Your task to perform on an android device: allow cookies in the chrome app Image 0: 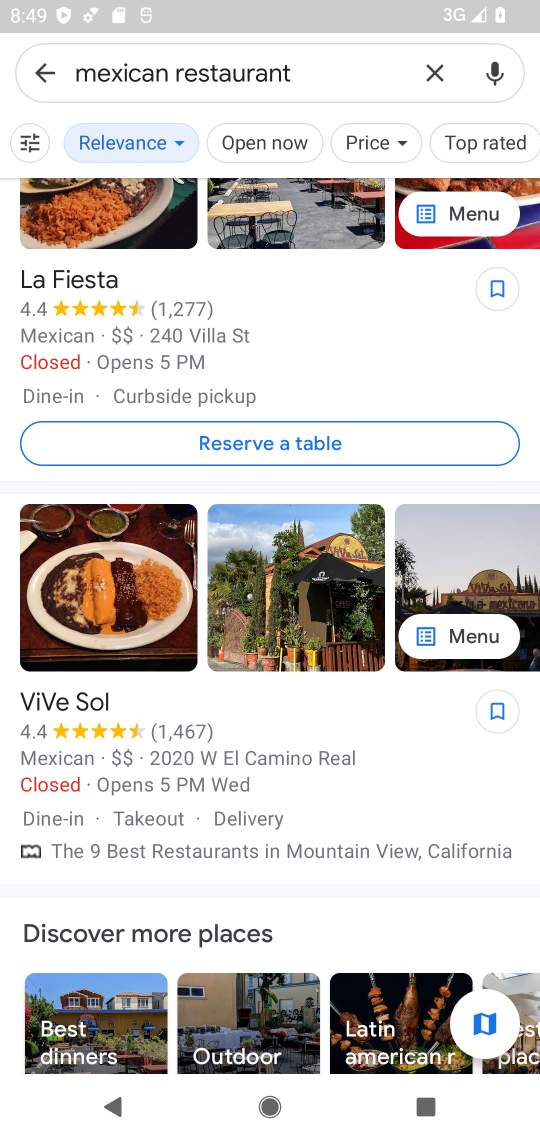
Step 0: press home button
Your task to perform on an android device: allow cookies in the chrome app Image 1: 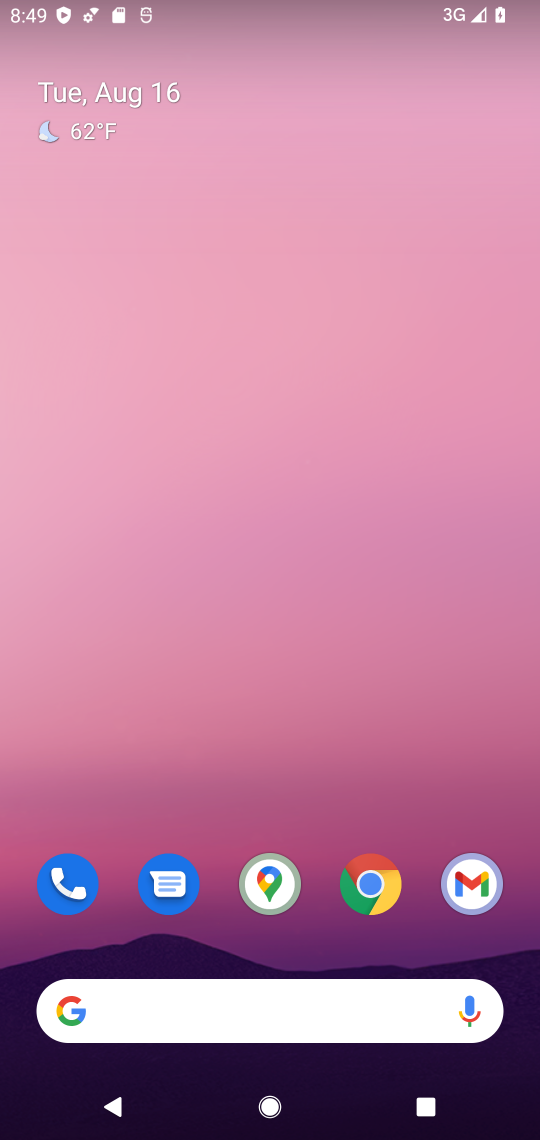
Step 1: click (372, 887)
Your task to perform on an android device: allow cookies in the chrome app Image 2: 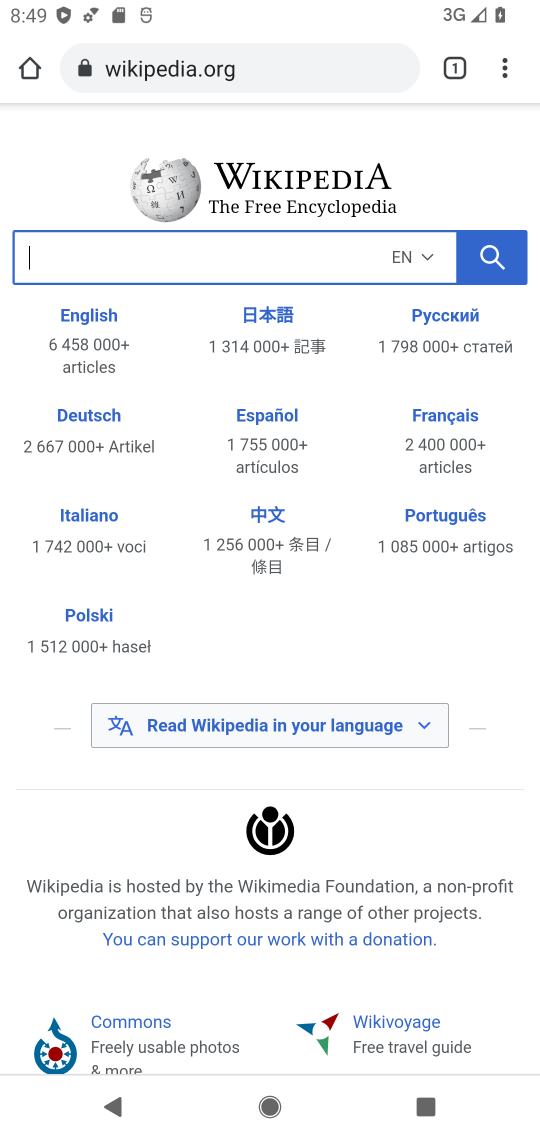
Step 2: click (496, 75)
Your task to perform on an android device: allow cookies in the chrome app Image 3: 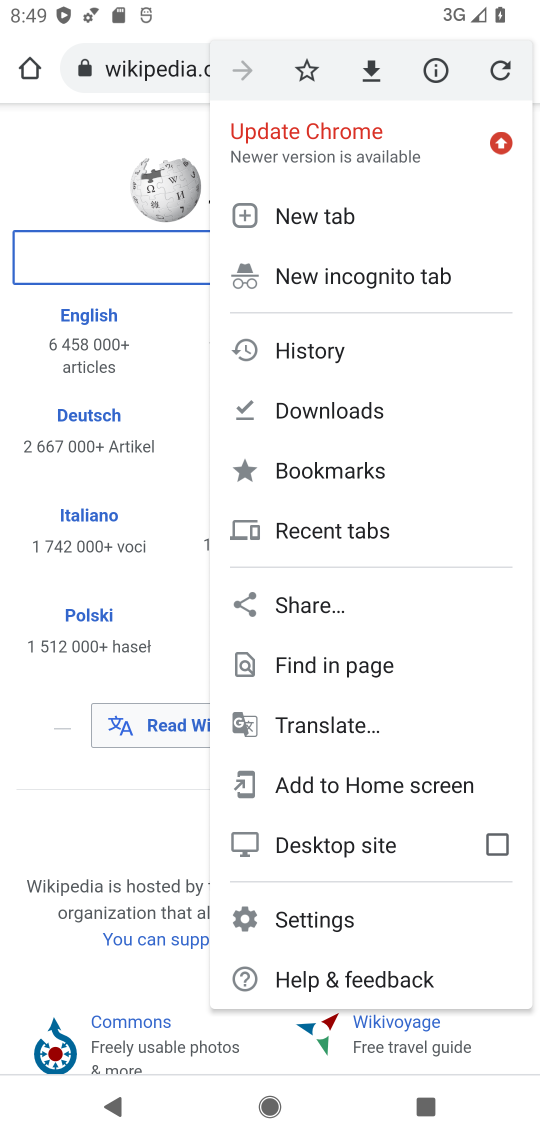
Step 3: click (320, 916)
Your task to perform on an android device: allow cookies in the chrome app Image 4: 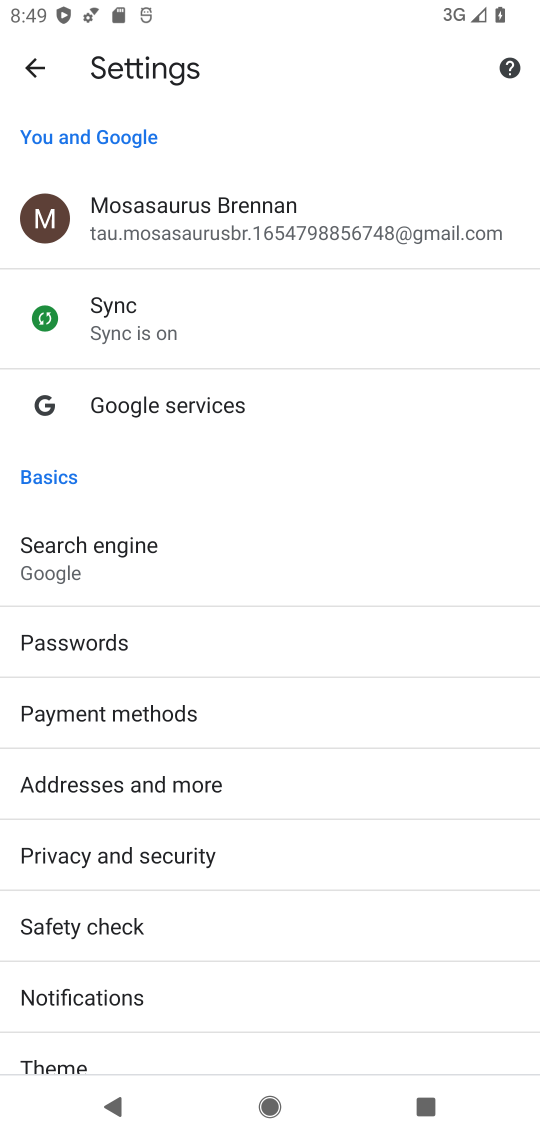
Step 4: drag from (343, 964) to (310, 408)
Your task to perform on an android device: allow cookies in the chrome app Image 5: 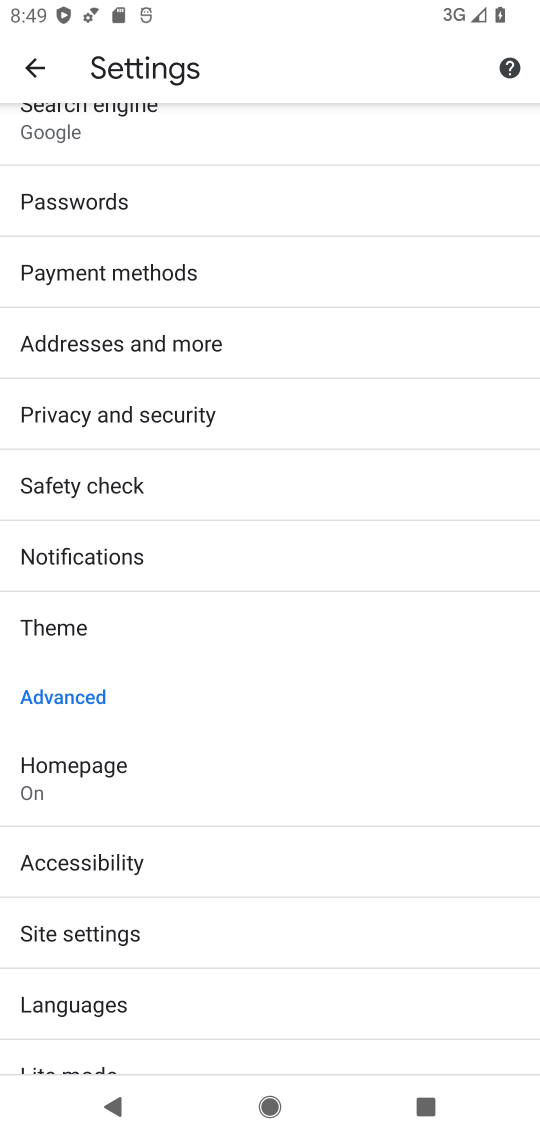
Step 5: drag from (314, 918) to (293, 368)
Your task to perform on an android device: allow cookies in the chrome app Image 6: 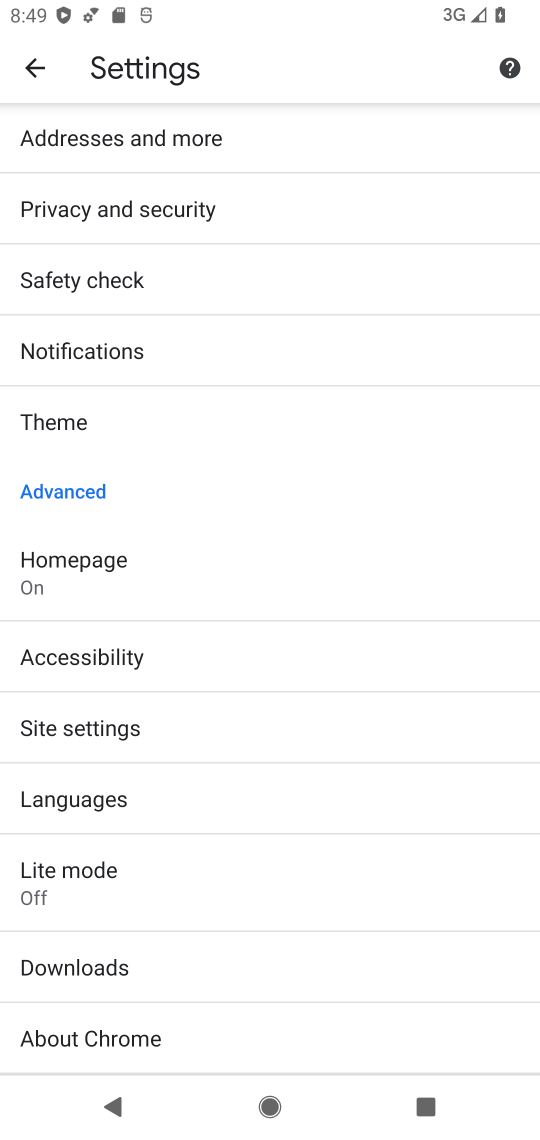
Step 6: click (99, 724)
Your task to perform on an android device: allow cookies in the chrome app Image 7: 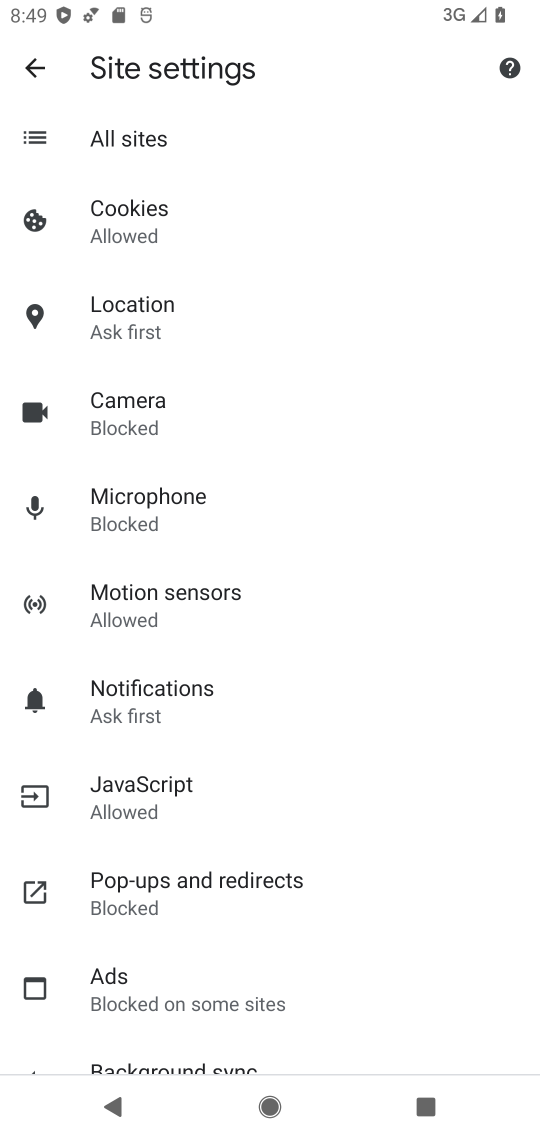
Step 7: click (122, 217)
Your task to perform on an android device: allow cookies in the chrome app Image 8: 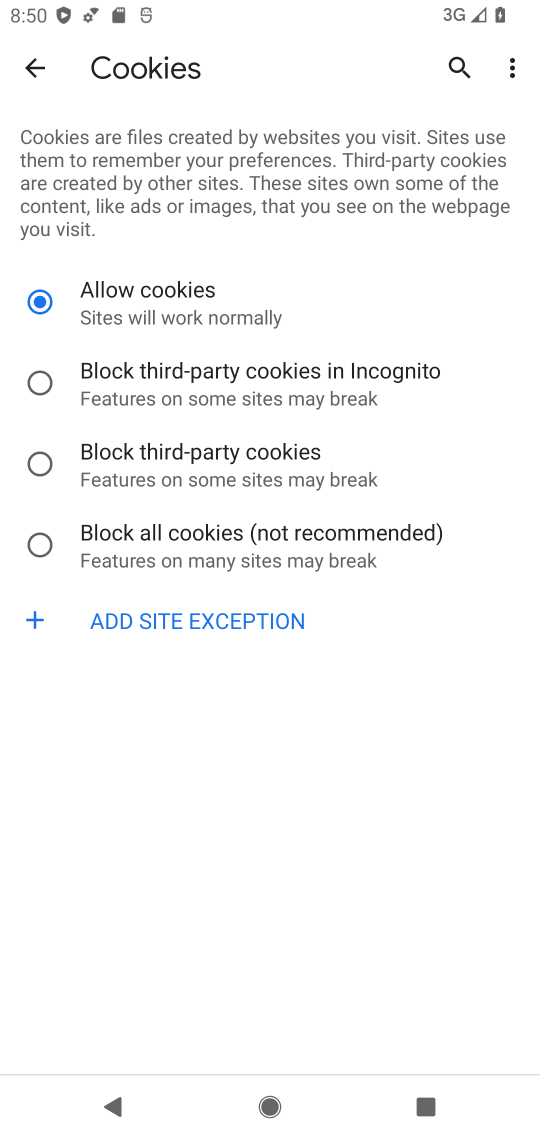
Step 8: task complete